Your task to perform on an android device: toggle sleep mode Image 0: 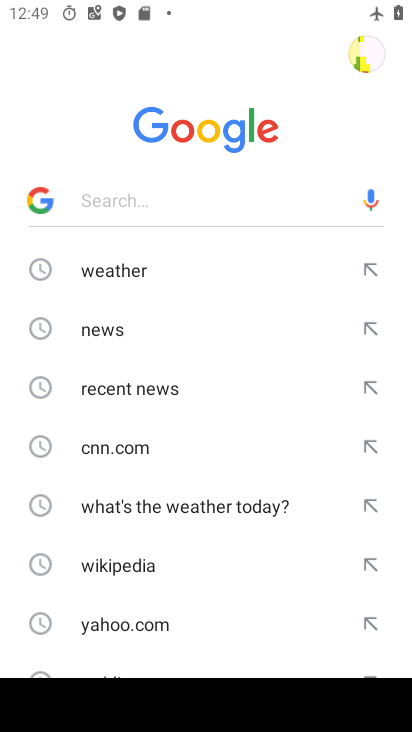
Step 0: press home button
Your task to perform on an android device: toggle sleep mode Image 1: 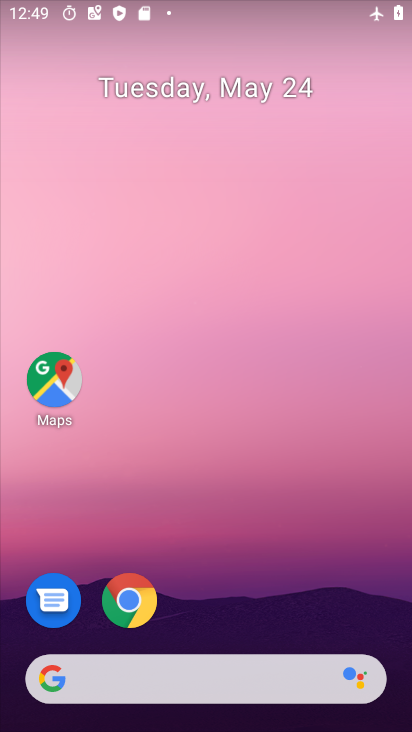
Step 1: drag from (241, 554) to (260, 86)
Your task to perform on an android device: toggle sleep mode Image 2: 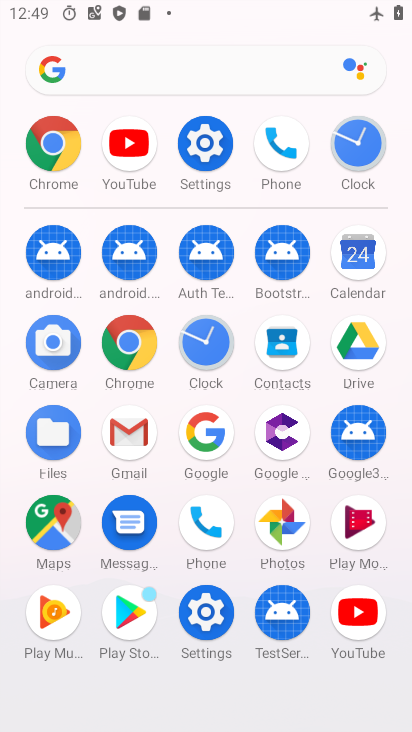
Step 2: click (206, 152)
Your task to perform on an android device: toggle sleep mode Image 3: 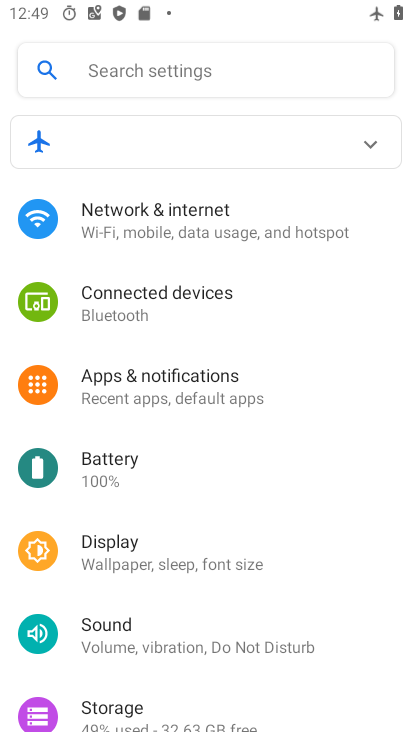
Step 3: click (149, 543)
Your task to perform on an android device: toggle sleep mode Image 4: 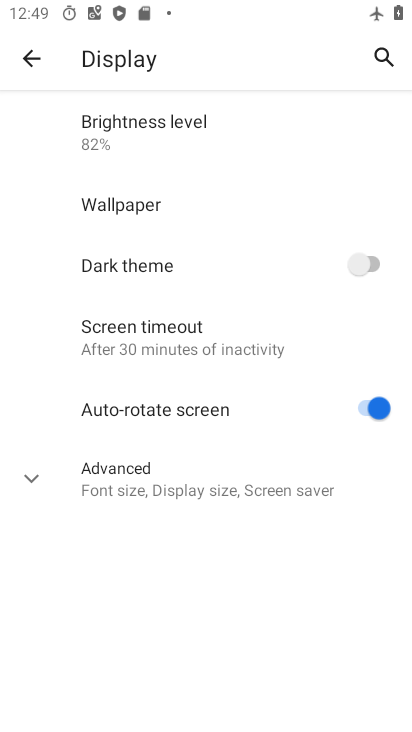
Step 4: click (166, 348)
Your task to perform on an android device: toggle sleep mode Image 5: 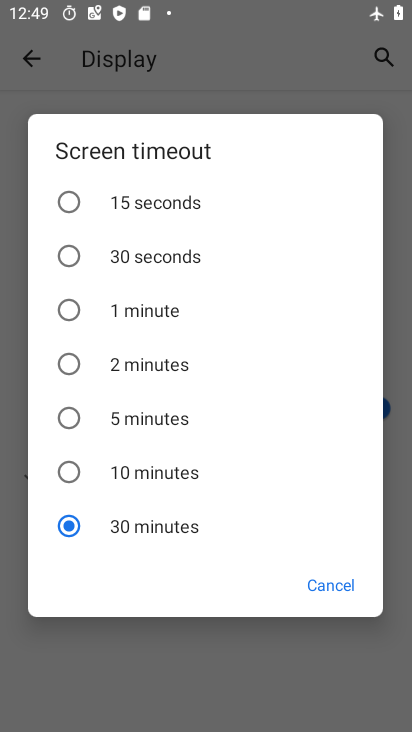
Step 5: click (157, 474)
Your task to perform on an android device: toggle sleep mode Image 6: 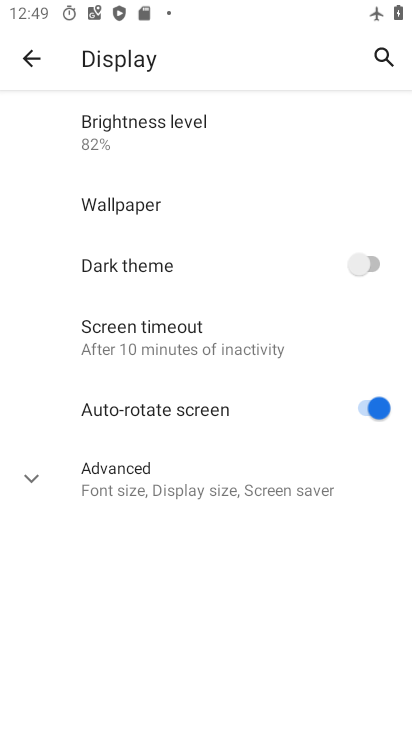
Step 6: task complete